Your task to perform on an android device: When is my next meeting? Image 0: 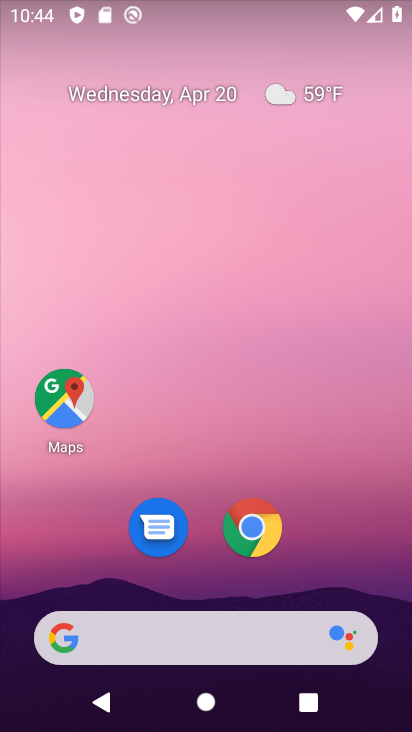
Step 0: drag from (357, 561) to (385, 149)
Your task to perform on an android device: When is my next meeting? Image 1: 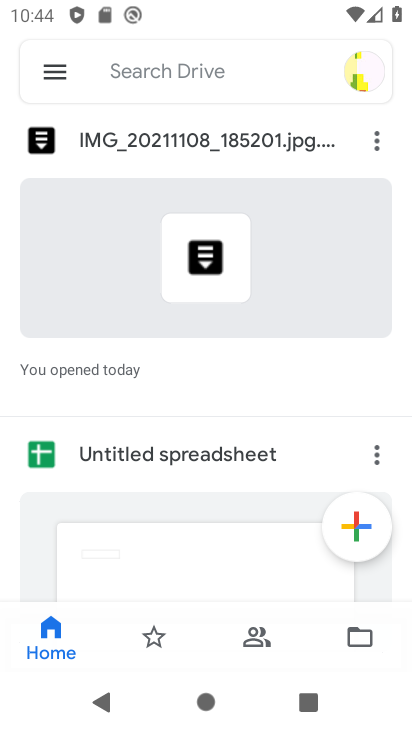
Step 1: press home button
Your task to perform on an android device: When is my next meeting? Image 2: 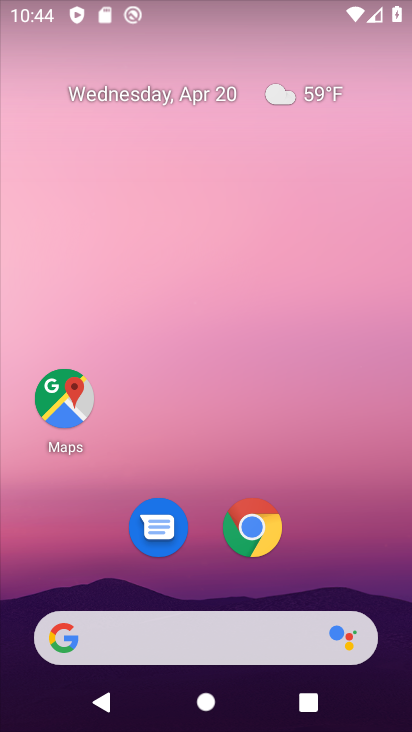
Step 2: drag from (371, 518) to (372, 131)
Your task to perform on an android device: When is my next meeting? Image 3: 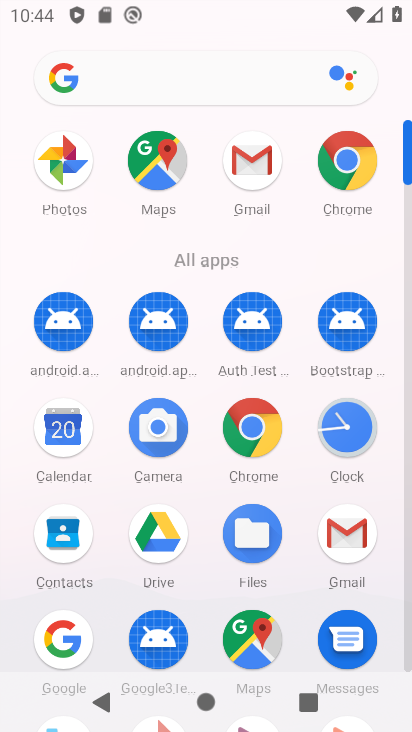
Step 3: click (56, 439)
Your task to perform on an android device: When is my next meeting? Image 4: 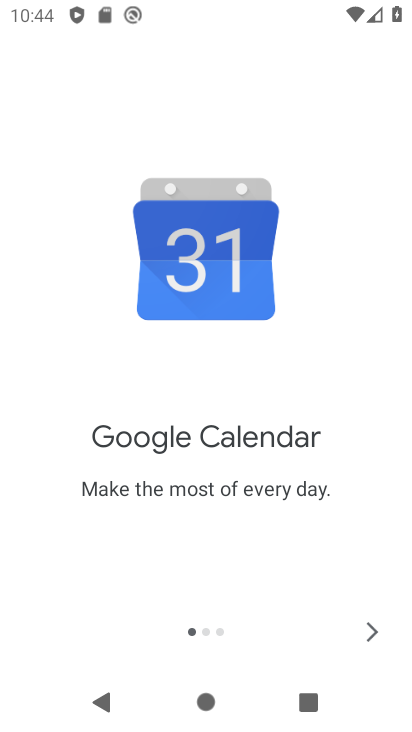
Step 4: click (371, 631)
Your task to perform on an android device: When is my next meeting? Image 5: 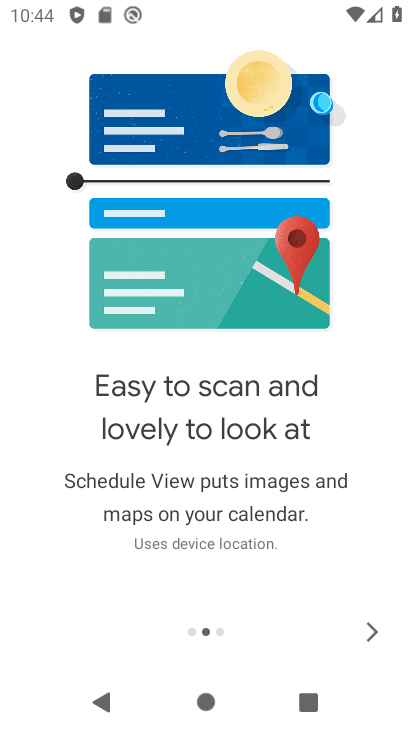
Step 5: click (371, 631)
Your task to perform on an android device: When is my next meeting? Image 6: 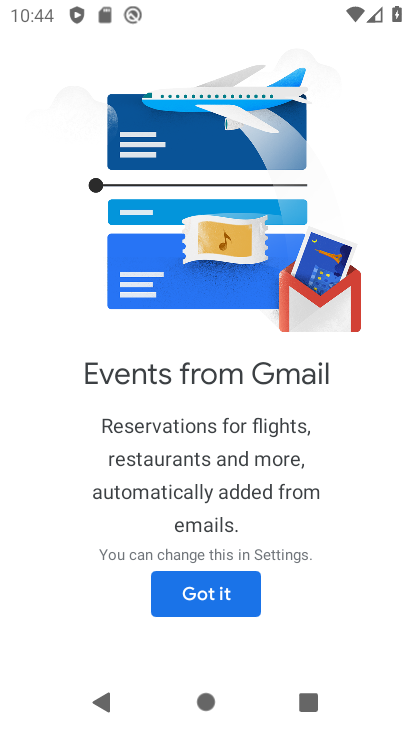
Step 6: click (187, 589)
Your task to perform on an android device: When is my next meeting? Image 7: 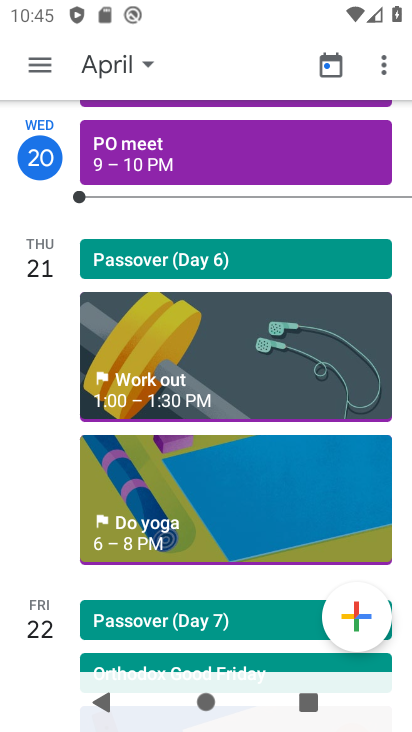
Step 7: click (112, 76)
Your task to perform on an android device: When is my next meeting? Image 8: 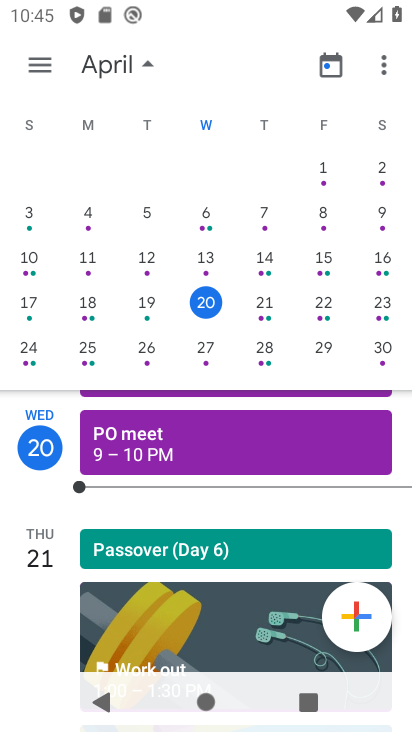
Step 8: click (45, 67)
Your task to perform on an android device: When is my next meeting? Image 9: 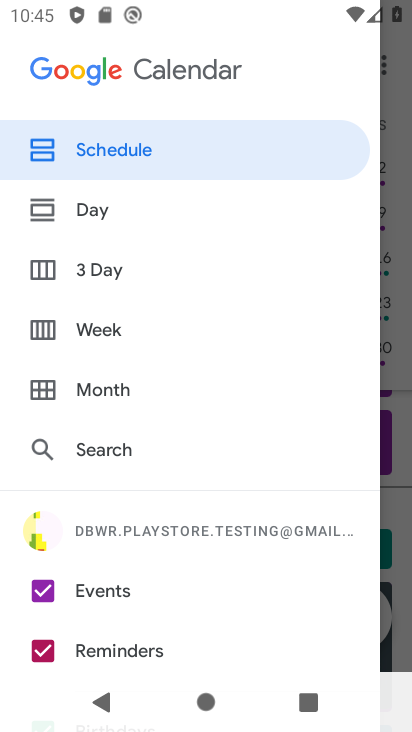
Step 9: drag from (185, 615) to (248, 256)
Your task to perform on an android device: When is my next meeting? Image 10: 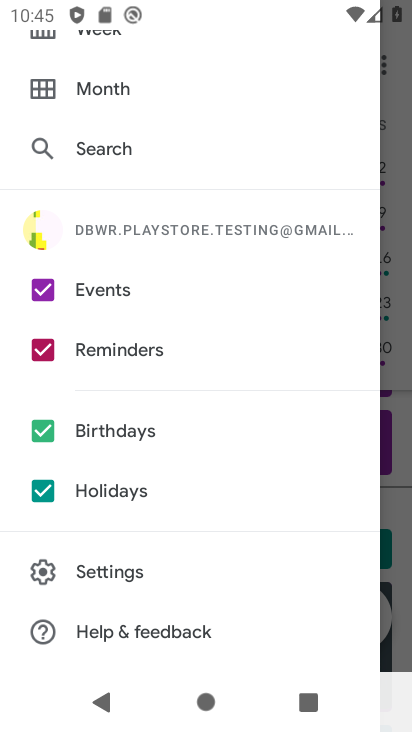
Step 10: click (49, 352)
Your task to perform on an android device: When is my next meeting? Image 11: 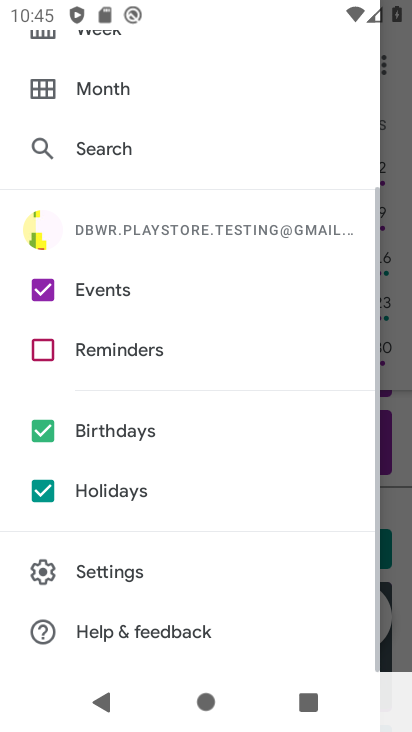
Step 11: click (45, 436)
Your task to perform on an android device: When is my next meeting? Image 12: 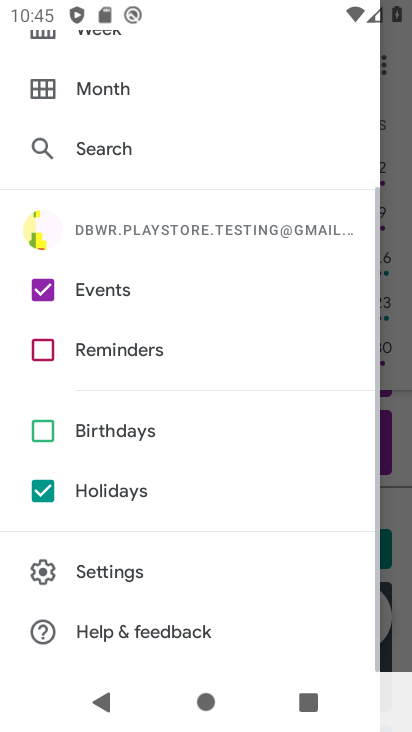
Step 12: click (47, 495)
Your task to perform on an android device: When is my next meeting? Image 13: 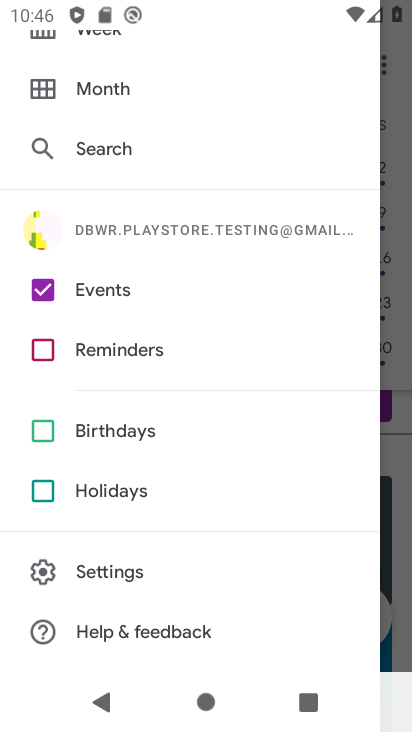
Step 13: drag from (251, 167) to (240, 551)
Your task to perform on an android device: When is my next meeting? Image 14: 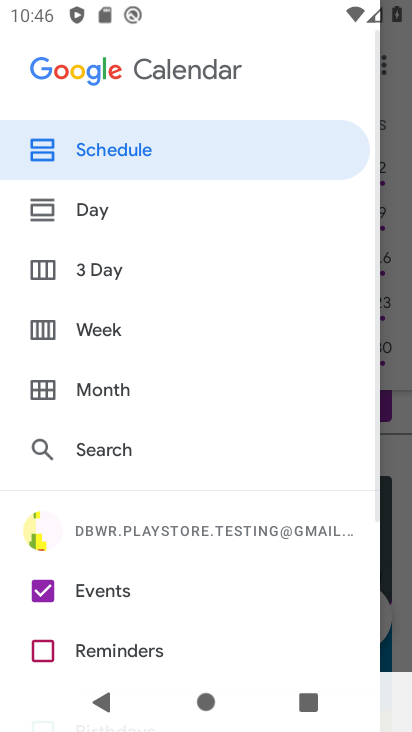
Step 14: click (398, 499)
Your task to perform on an android device: When is my next meeting? Image 15: 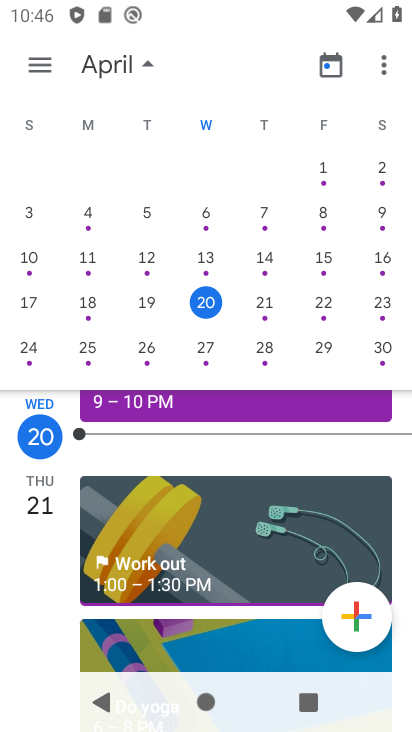
Step 15: click (43, 72)
Your task to perform on an android device: When is my next meeting? Image 16: 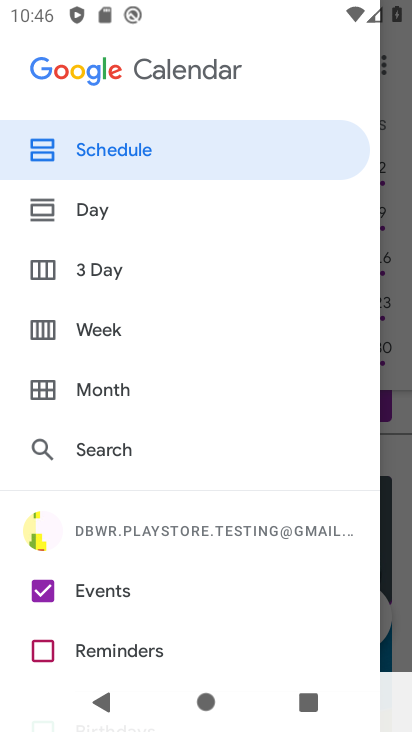
Step 16: click (144, 143)
Your task to perform on an android device: When is my next meeting? Image 17: 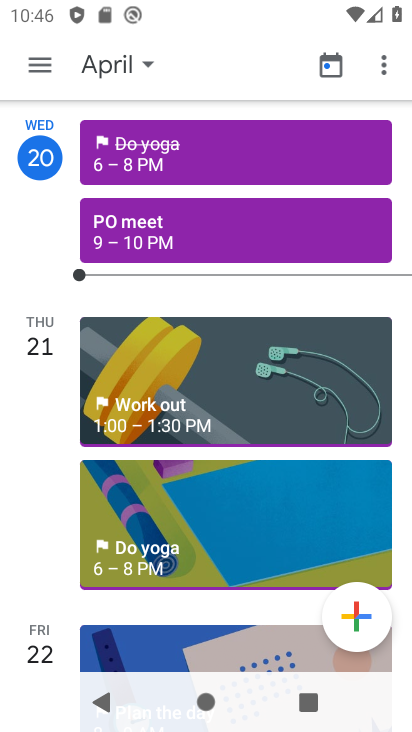
Step 17: drag from (121, 620) to (222, 250)
Your task to perform on an android device: When is my next meeting? Image 18: 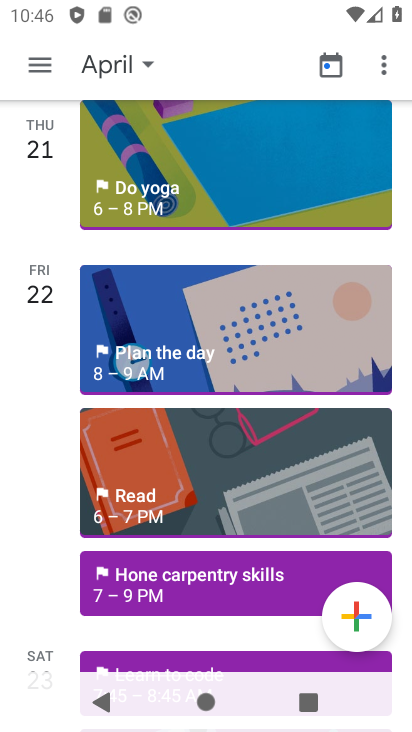
Step 18: drag from (262, 234) to (264, 496)
Your task to perform on an android device: When is my next meeting? Image 19: 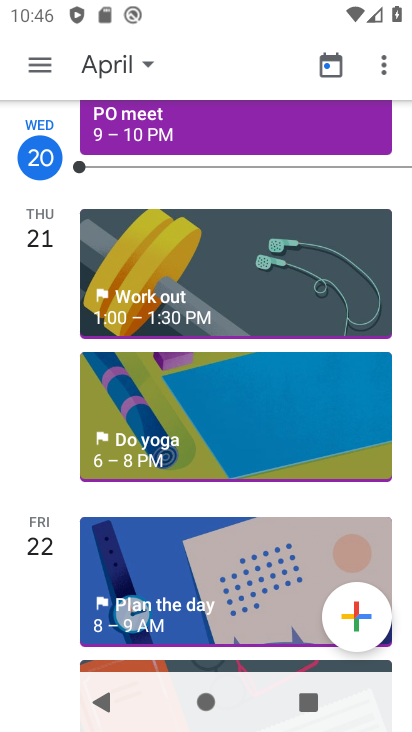
Step 19: click (140, 132)
Your task to perform on an android device: When is my next meeting? Image 20: 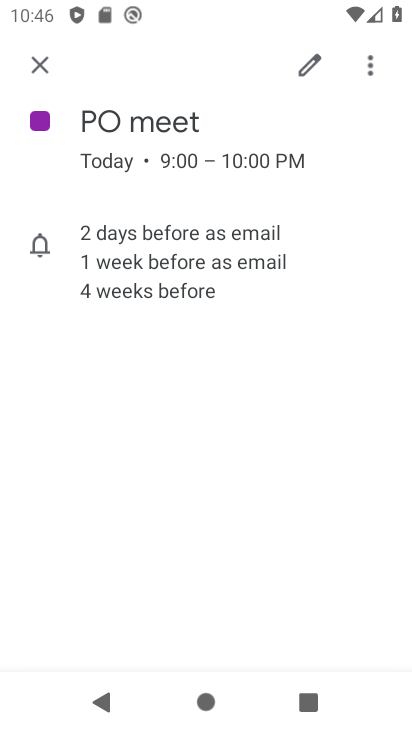
Step 20: task complete